Your task to perform on an android device: Go to Android settings Image 0: 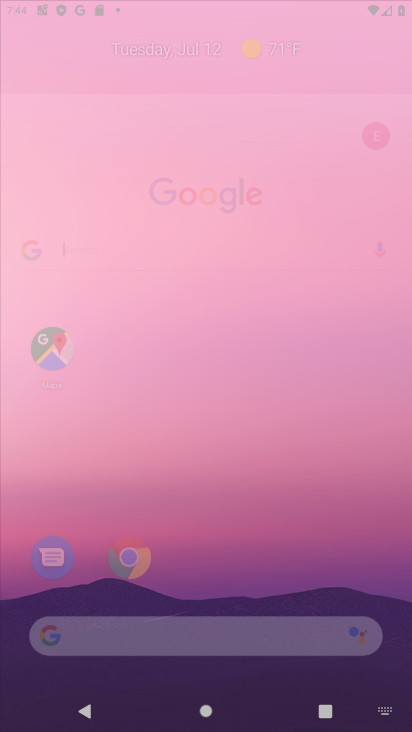
Step 0: click (187, 90)
Your task to perform on an android device: Go to Android settings Image 1: 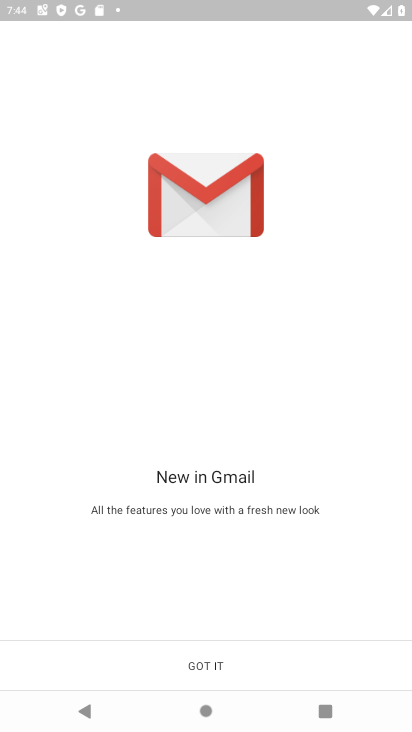
Step 1: press home button
Your task to perform on an android device: Go to Android settings Image 2: 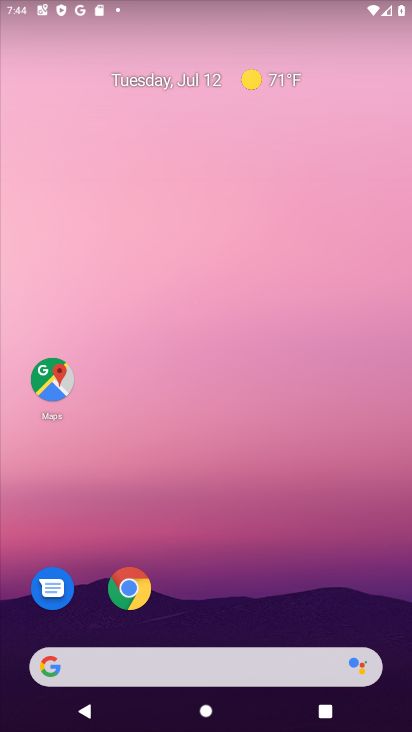
Step 2: drag from (51, 714) to (310, 57)
Your task to perform on an android device: Go to Android settings Image 3: 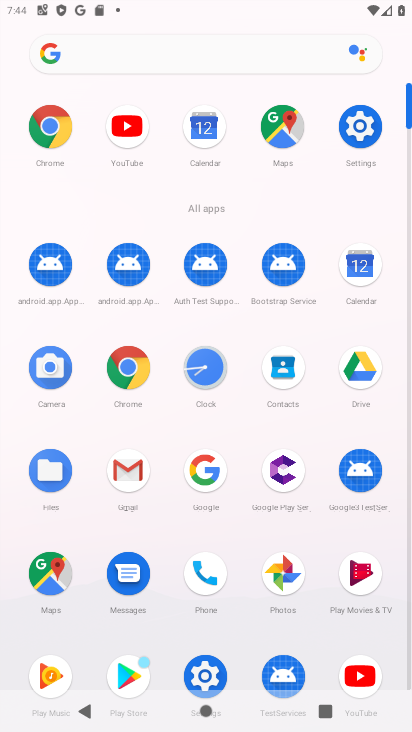
Step 3: click (202, 670)
Your task to perform on an android device: Go to Android settings Image 4: 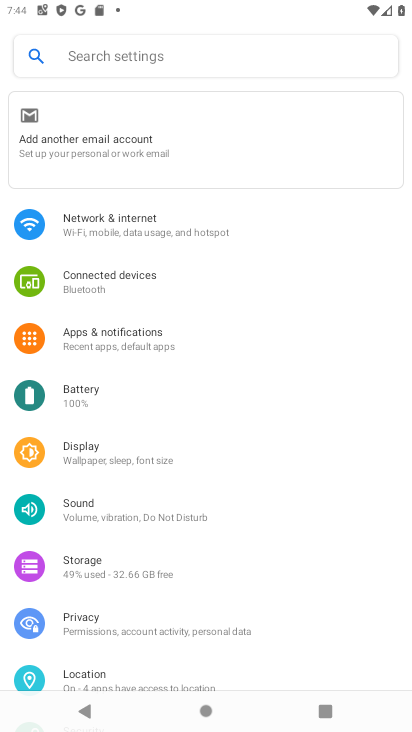
Step 4: drag from (144, 595) to (238, 239)
Your task to perform on an android device: Go to Android settings Image 5: 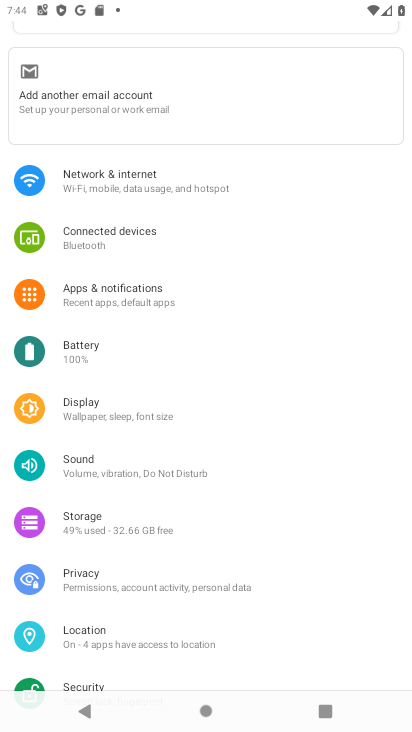
Step 5: drag from (142, 630) to (253, 39)
Your task to perform on an android device: Go to Android settings Image 6: 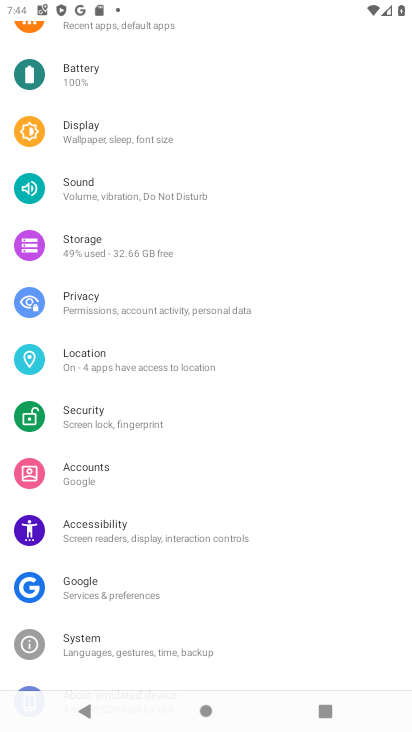
Step 6: drag from (147, 635) to (208, 253)
Your task to perform on an android device: Go to Android settings Image 7: 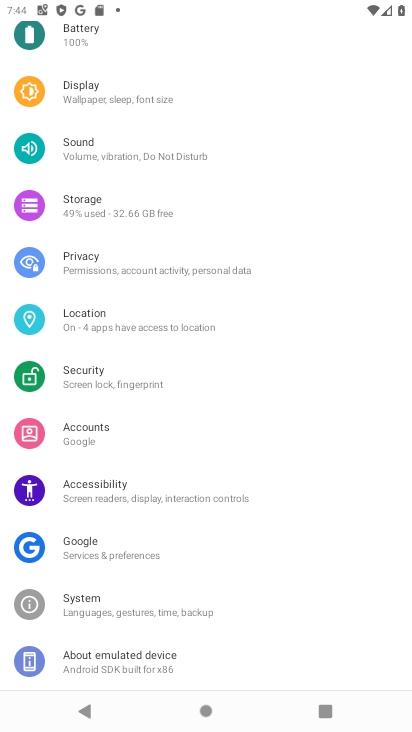
Step 7: click (104, 662)
Your task to perform on an android device: Go to Android settings Image 8: 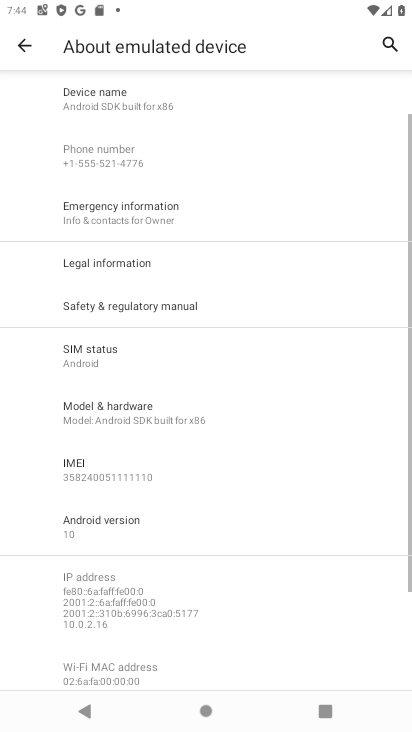
Step 8: drag from (199, 597) to (223, 335)
Your task to perform on an android device: Go to Android settings Image 9: 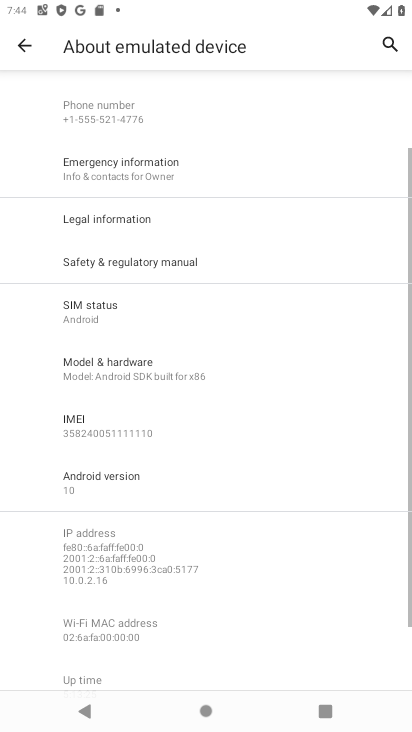
Step 9: click (137, 476)
Your task to perform on an android device: Go to Android settings Image 10: 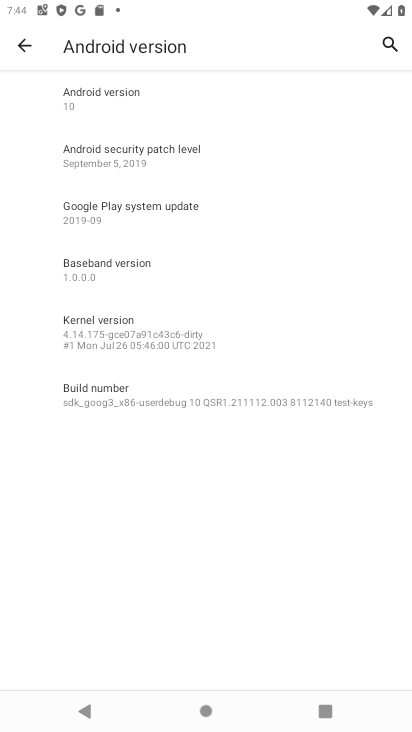
Step 10: task complete